Your task to perform on an android device: allow cookies in the chrome app Image 0: 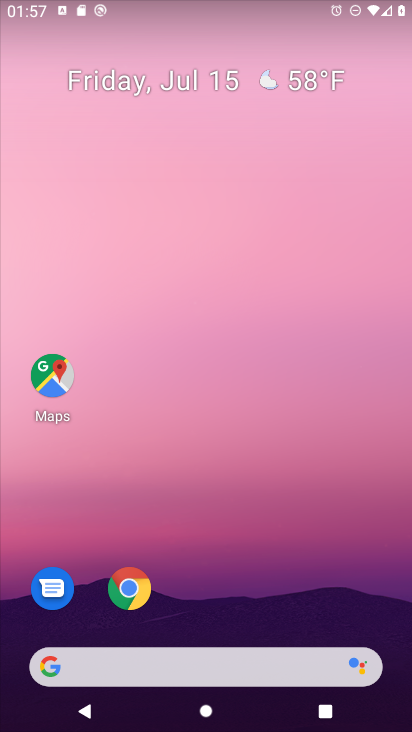
Step 0: click (130, 589)
Your task to perform on an android device: allow cookies in the chrome app Image 1: 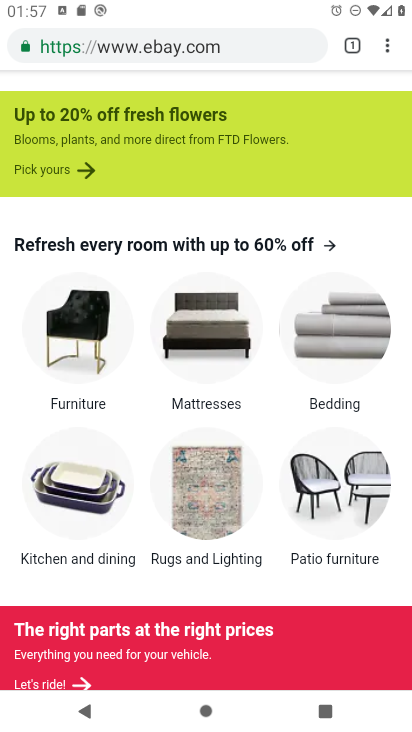
Step 1: click (384, 52)
Your task to perform on an android device: allow cookies in the chrome app Image 2: 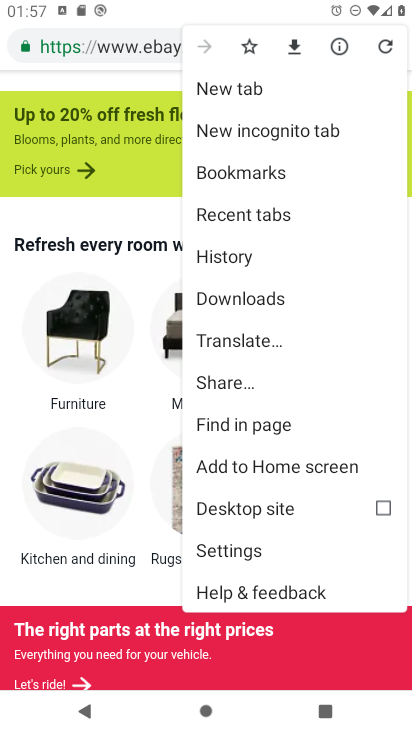
Step 2: click (236, 550)
Your task to perform on an android device: allow cookies in the chrome app Image 3: 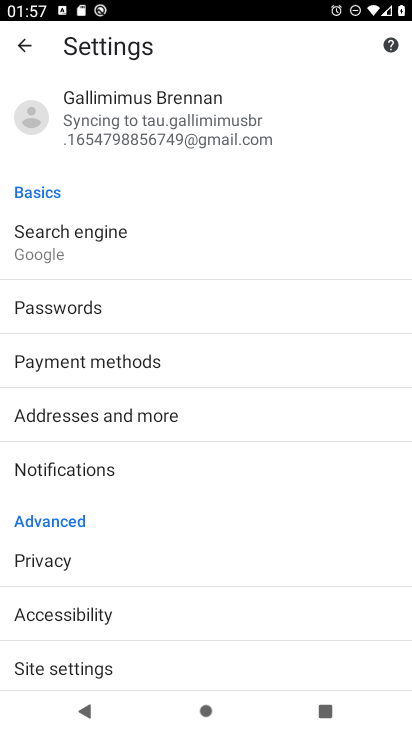
Step 3: drag from (190, 632) to (216, 192)
Your task to perform on an android device: allow cookies in the chrome app Image 4: 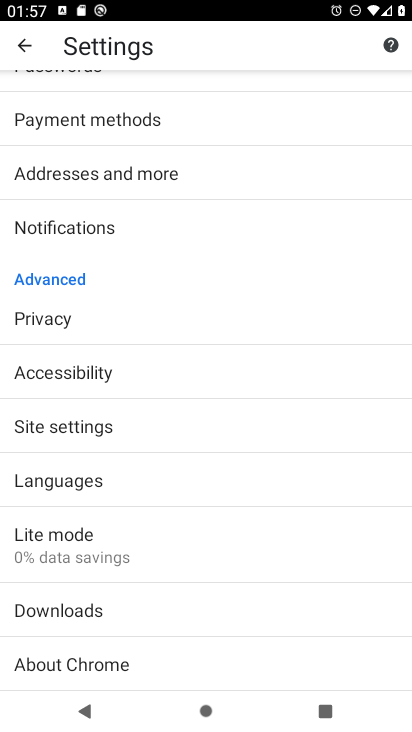
Step 4: click (51, 420)
Your task to perform on an android device: allow cookies in the chrome app Image 5: 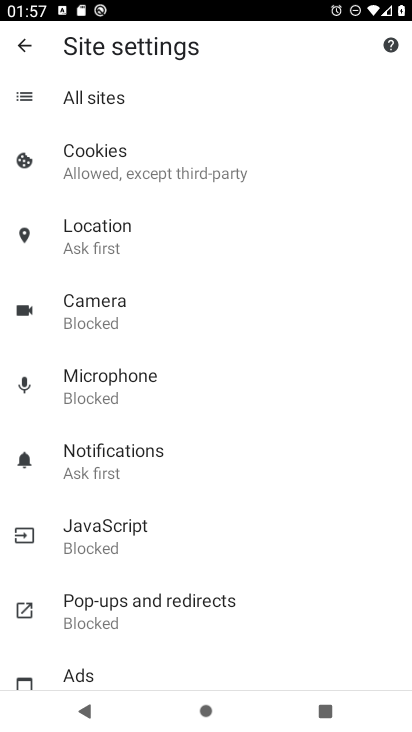
Step 5: click (113, 159)
Your task to perform on an android device: allow cookies in the chrome app Image 6: 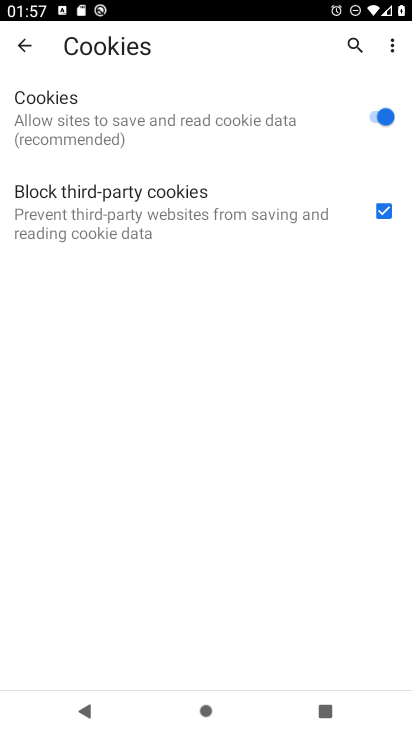
Step 6: task complete